Your task to perform on an android device: empty trash in google photos Image 0: 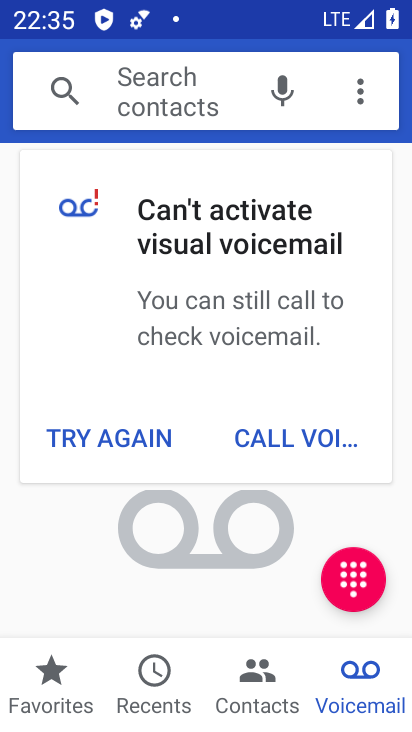
Step 0: press home button
Your task to perform on an android device: empty trash in google photos Image 1: 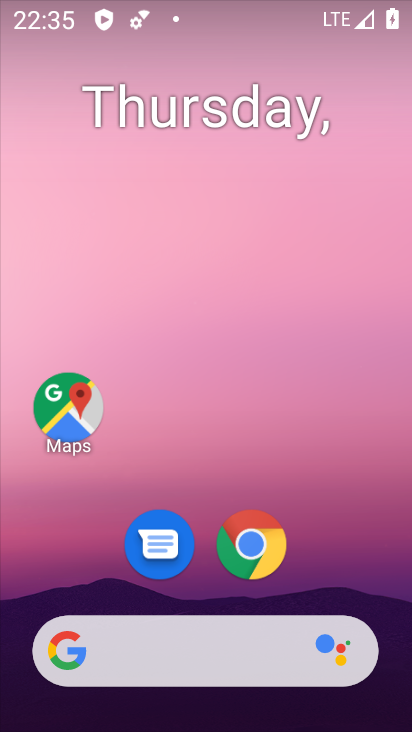
Step 1: drag from (334, 565) to (74, 106)
Your task to perform on an android device: empty trash in google photos Image 2: 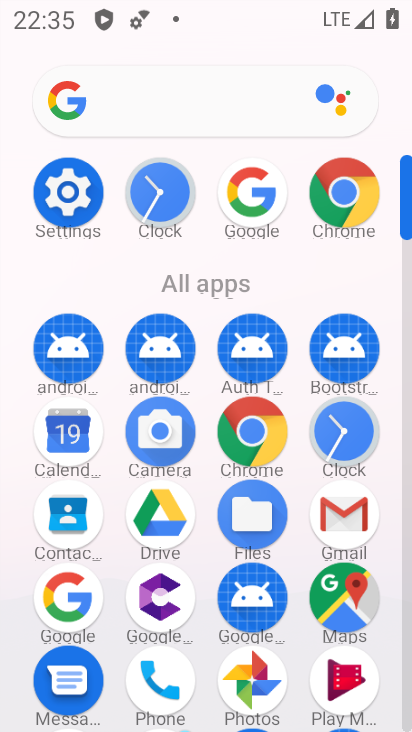
Step 2: click (244, 693)
Your task to perform on an android device: empty trash in google photos Image 3: 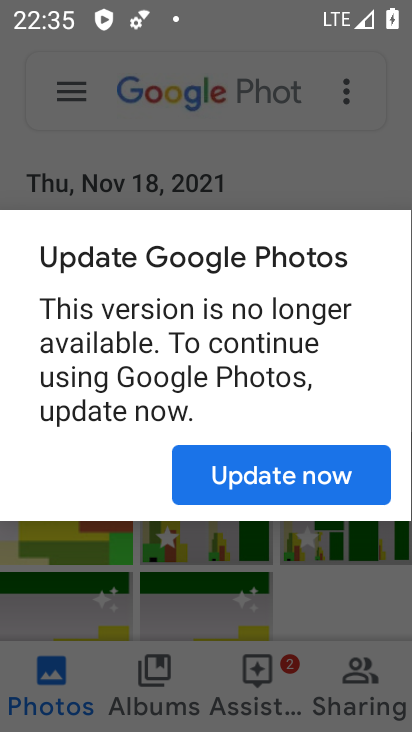
Step 3: click (57, 60)
Your task to perform on an android device: empty trash in google photos Image 4: 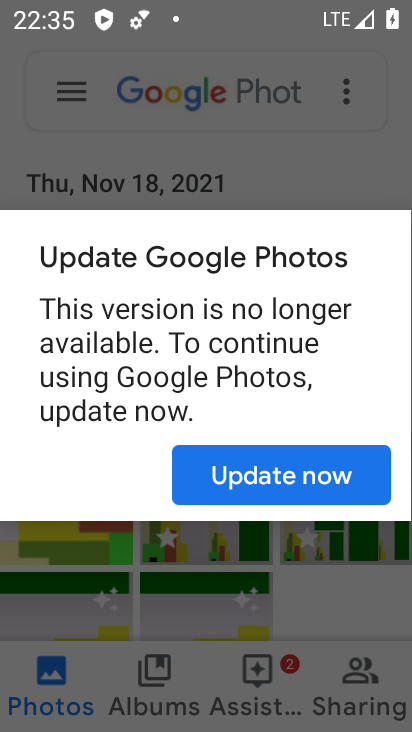
Step 4: click (49, 72)
Your task to perform on an android device: empty trash in google photos Image 5: 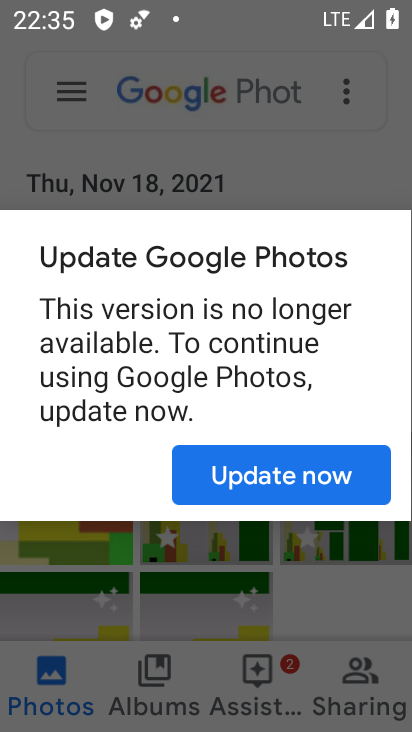
Step 5: click (63, 87)
Your task to perform on an android device: empty trash in google photos Image 6: 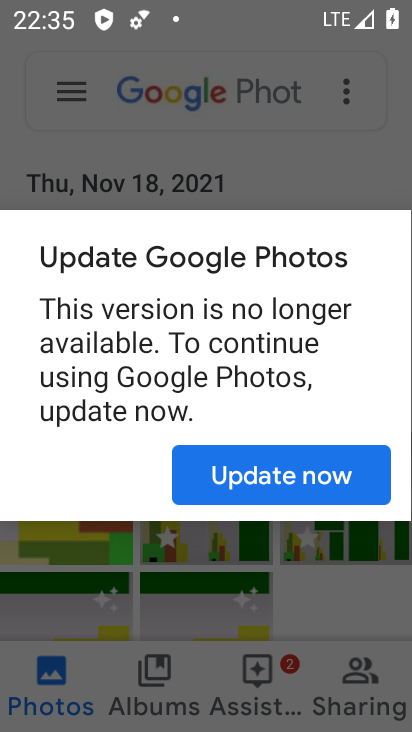
Step 6: click (298, 489)
Your task to perform on an android device: empty trash in google photos Image 7: 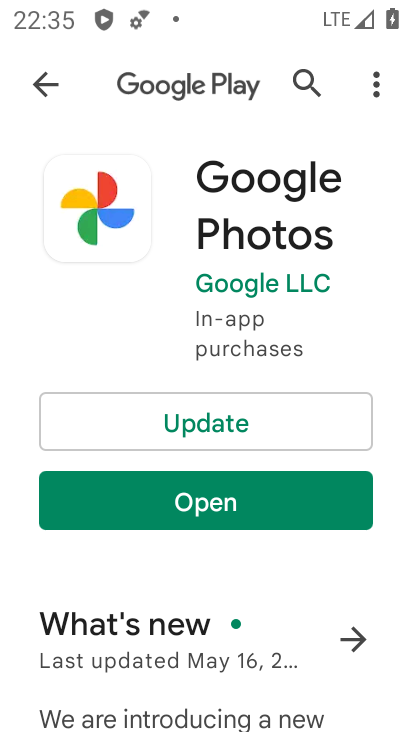
Step 7: click (186, 424)
Your task to perform on an android device: empty trash in google photos Image 8: 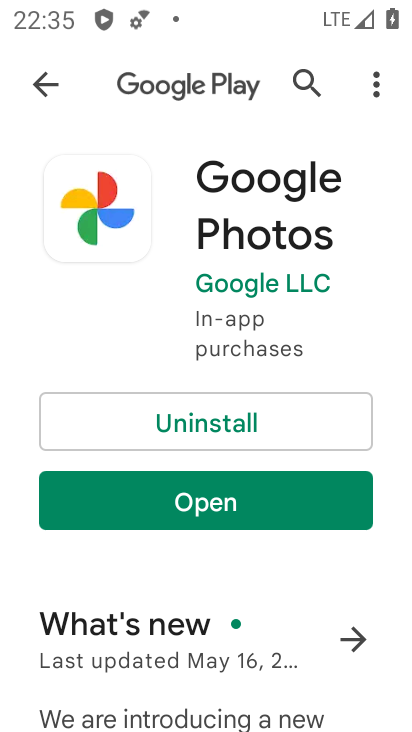
Step 8: click (198, 502)
Your task to perform on an android device: empty trash in google photos Image 9: 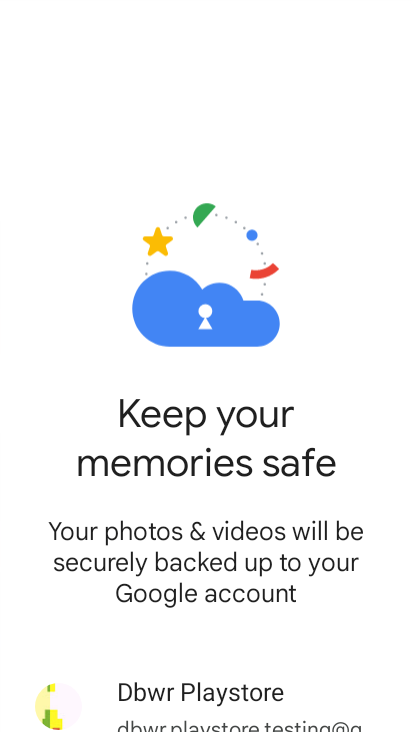
Step 9: drag from (246, 639) to (245, 191)
Your task to perform on an android device: empty trash in google photos Image 10: 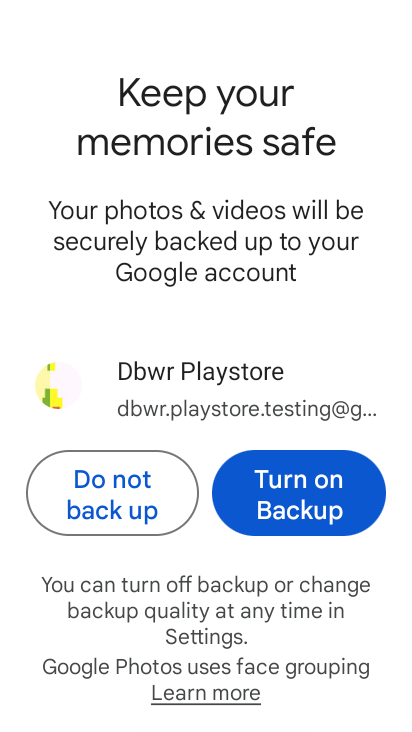
Step 10: click (138, 512)
Your task to perform on an android device: empty trash in google photos Image 11: 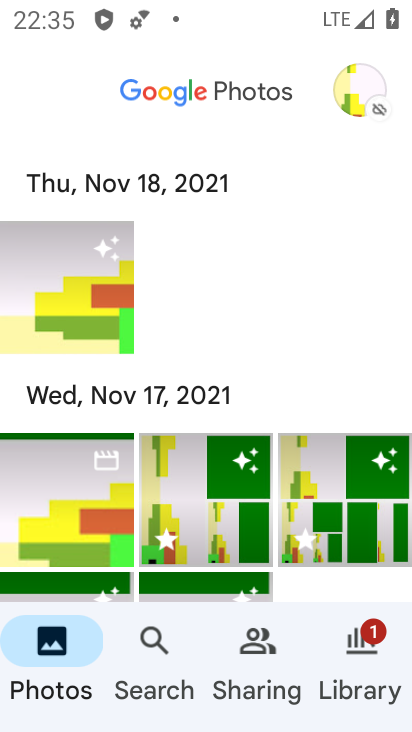
Step 11: click (351, 655)
Your task to perform on an android device: empty trash in google photos Image 12: 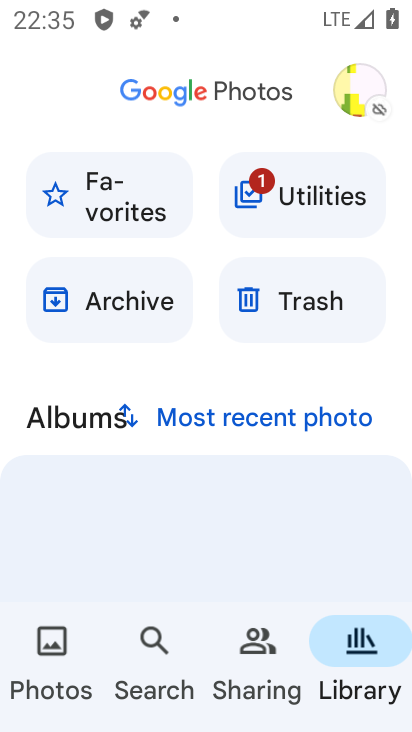
Step 12: click (292, 301)
Your task to perform on an android device: empty trash in google photos Image 13: 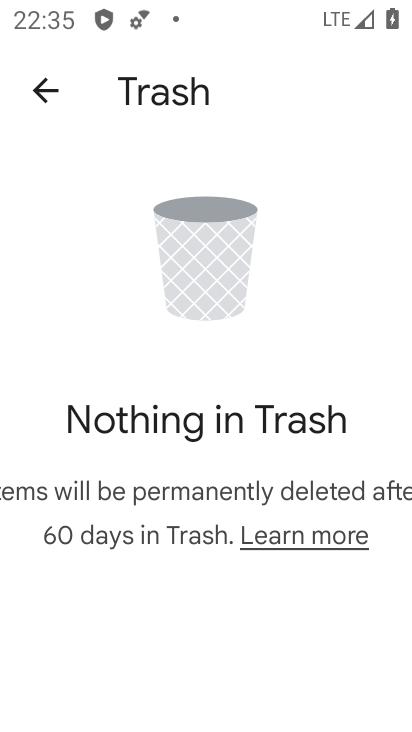
Step 13: task complete